Your task to perform on an android device: Open display settings Image 0: 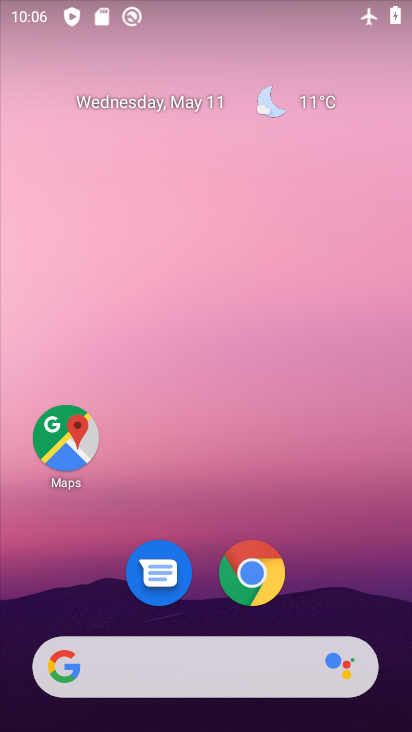
Step 0: drag from (208, 582) to (288, 81)
Your task to perform on an android device: Open display settings Image 1: 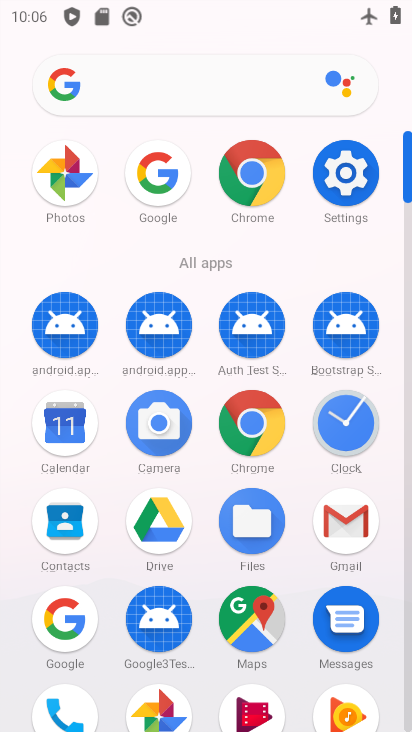
Step 1: click (353, 147)
Your task to perform on an android device: Open display settings Image 2: 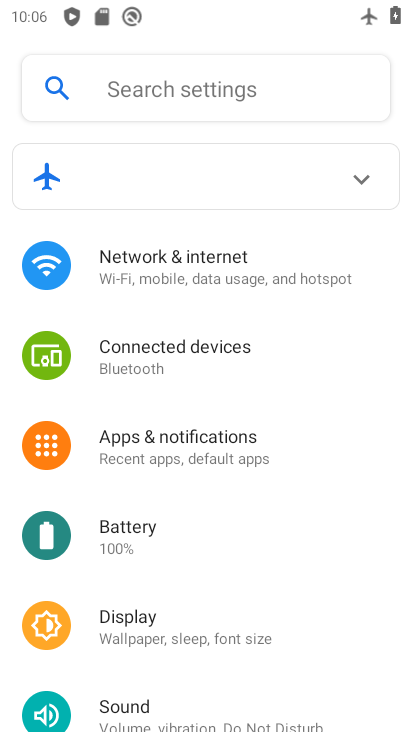
Step 2: click (150, 623)
Your task to perform on an android device: Open display settings Image 3: 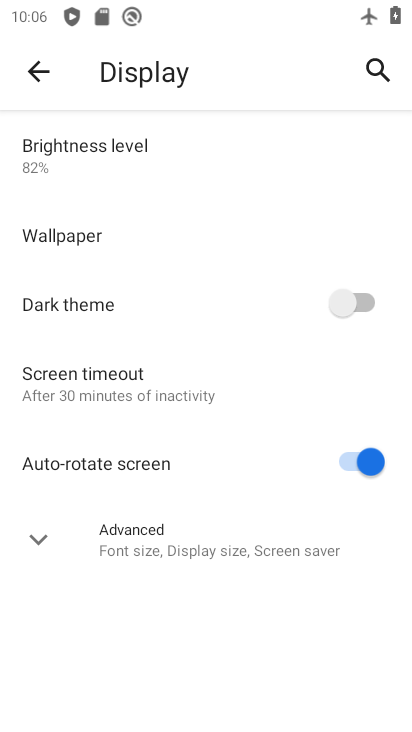
Step 3: task complete